Your task to perform on an android device: Check my email inbox Image 0: 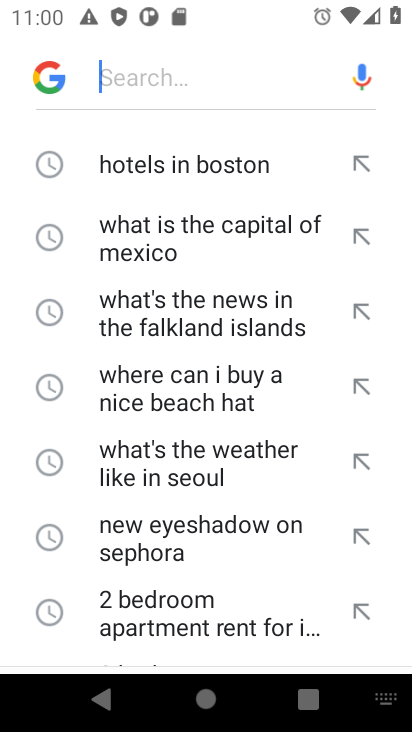
Step 0: press home button
Your task to perform on an android device: Check my email inbox Image 1: 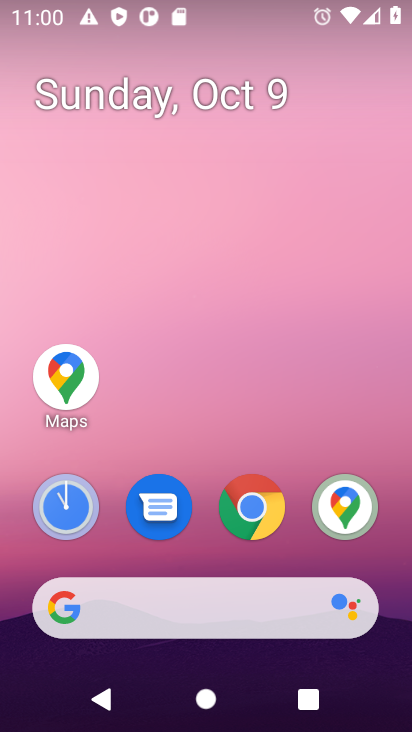
Step 1: press home button
Your task to perform on an android device: Check my email inbox Image 2: 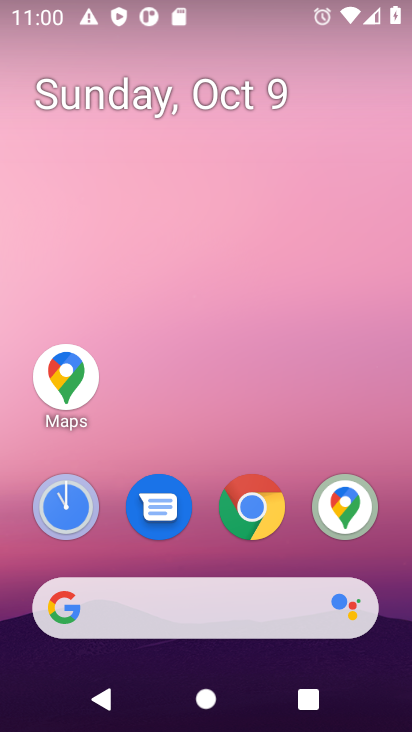
Step 2: drag from (391, 459) to (370, 76)
Your task to perform on an android device: Check my email inbox Image 3: 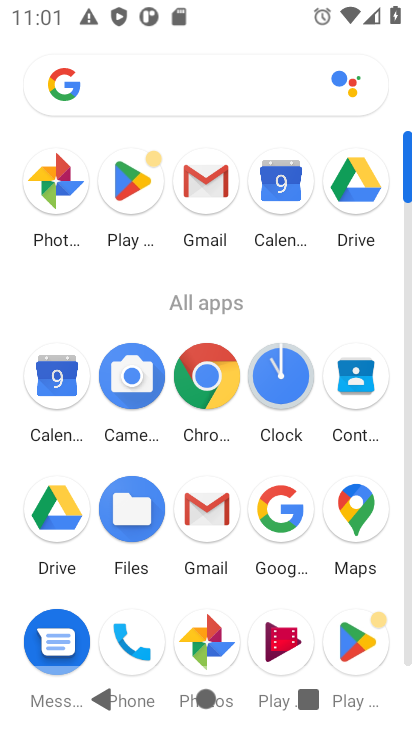
Step 3: click (212, 190)
Your task to perform on an android device: Check my email inbox Image 4: 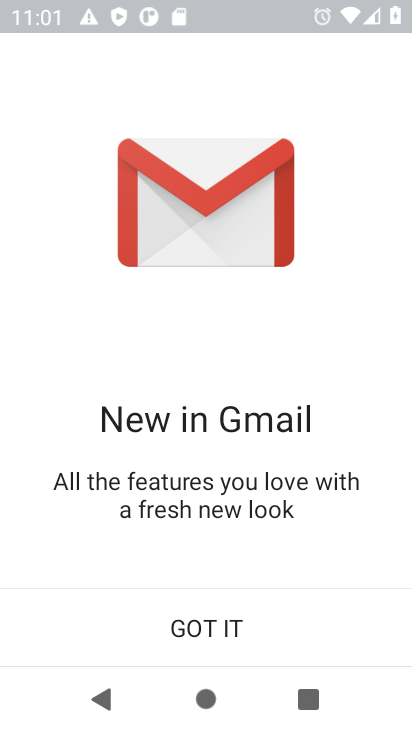
Step 4: click (241, 634)
Your task to perform on an android device: Check my email inbox Image 5: 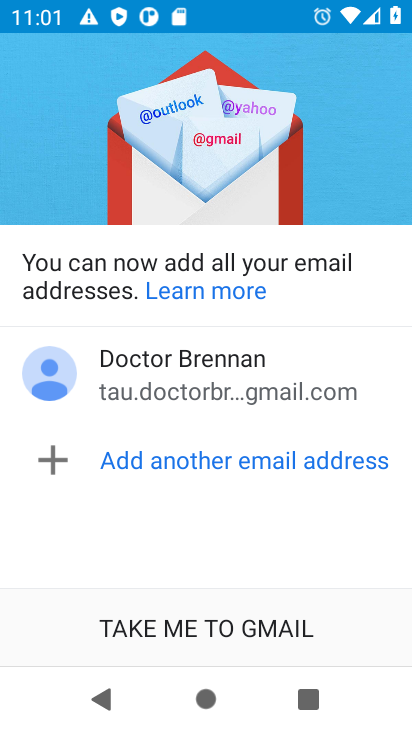
Step 5: click (258, 630)
Your task to perform on an android device: Check my email inbox Image 6: 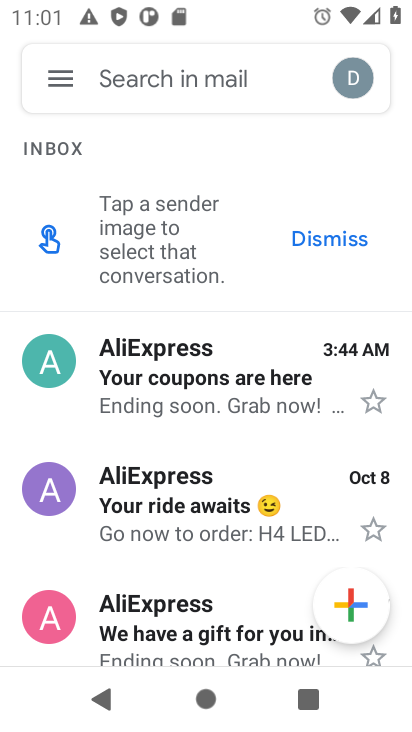
Step 6: click (330, 234)
Your task to perform on an android device: Check my email inbox Image 7: 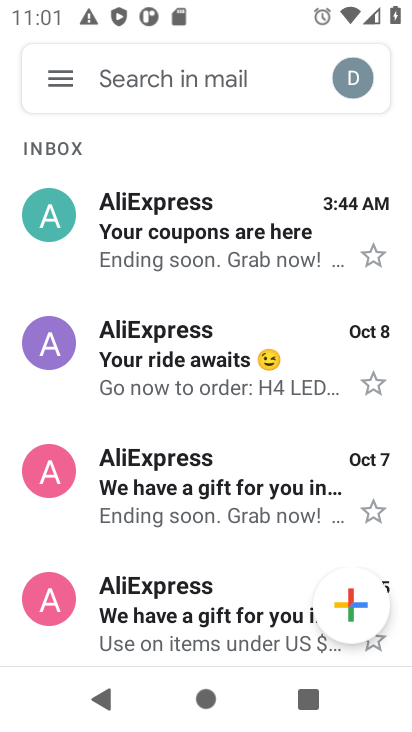
Step 7: task complete